Your task to perform on an android device: Add razer blade to the cart on bestbuy.com, then select checkout. Image 0: 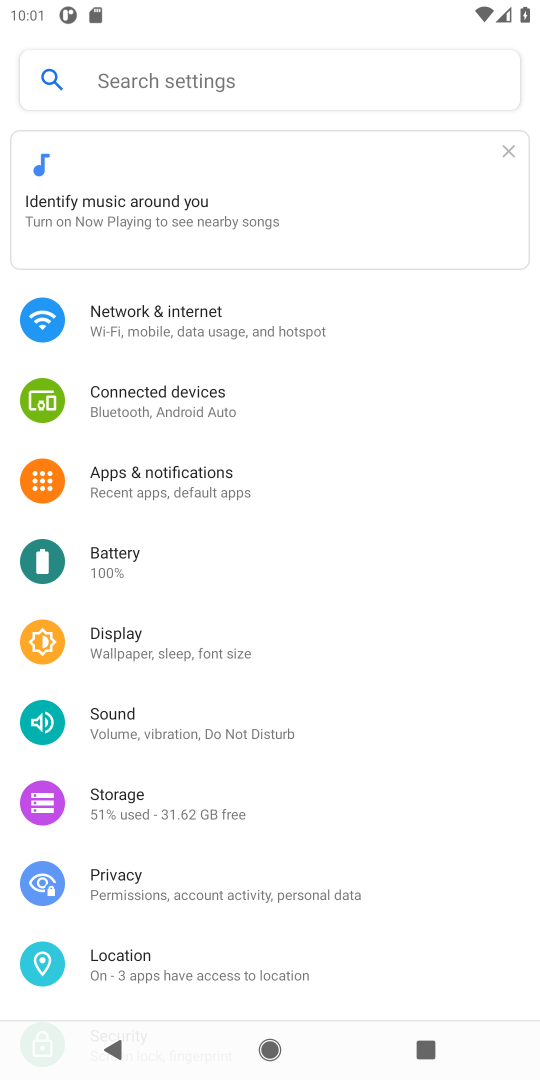
Step 0: press home button
Your task to perform on an android device: Add razer blade to the cart on bestbuy.com, then select checkout. Image 1: 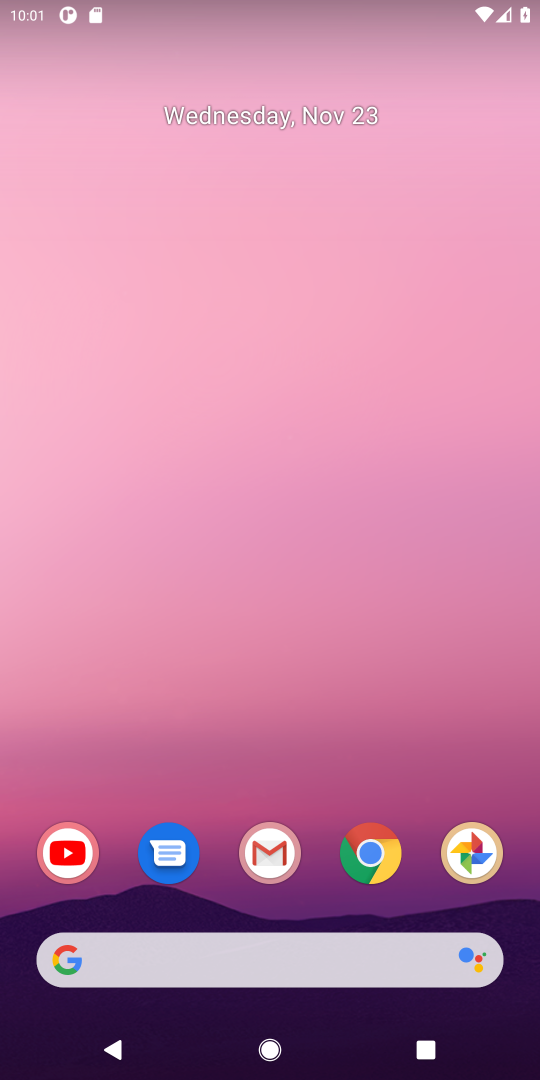
Step 1: click (361, 860)
Your task to perform on an android device: Add razer blade to the cart on bestbuy.com, then select checkout. Image 2: 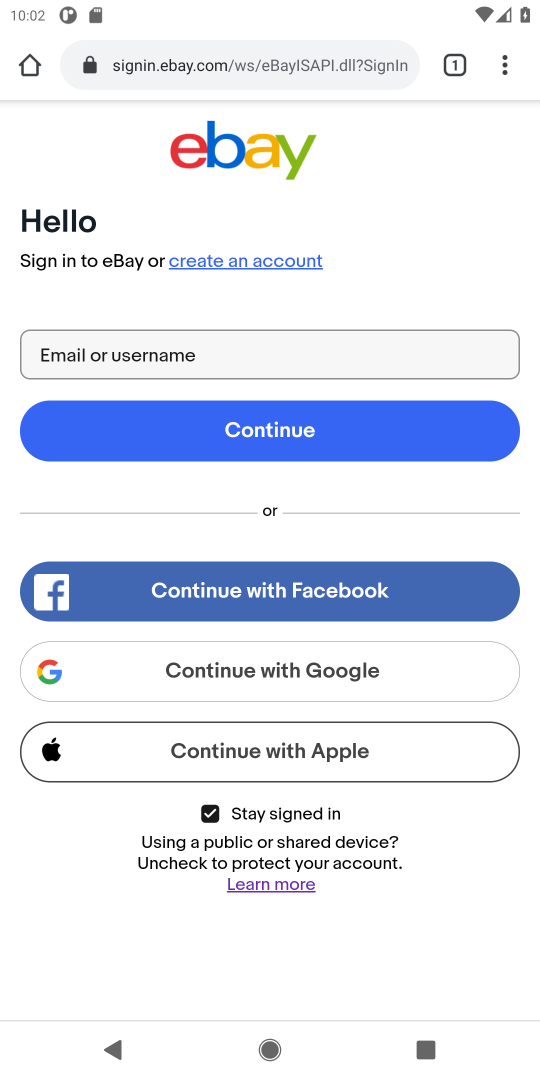
Step 2: click (156, 66)
Your task to perform on an android device: Add razer blade to the cart on bestbuy.com, then select checkout. Image 3: 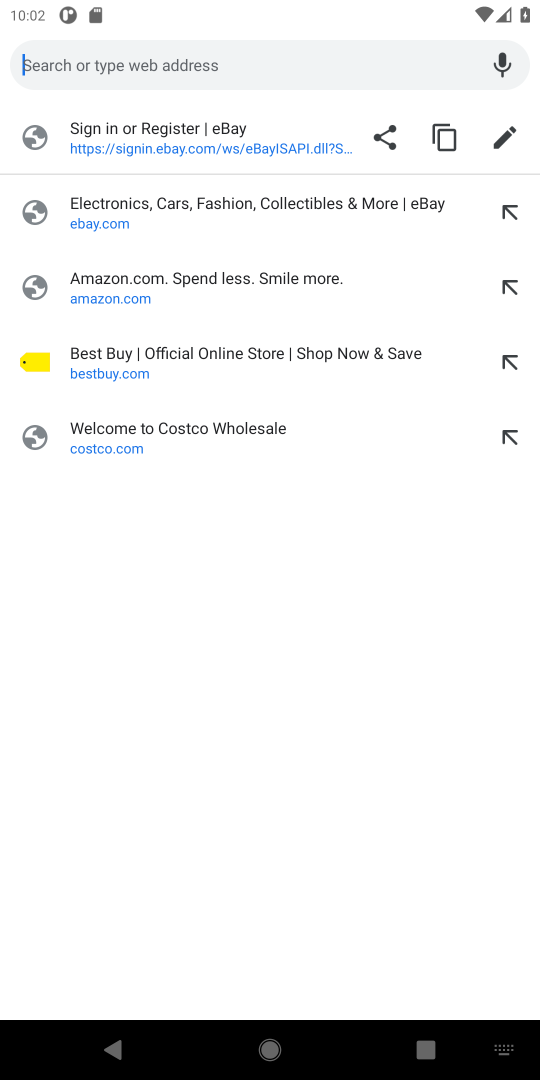
Step 3: click (90, 371)
Your task to perform on an android device: Add razer blade to the cart on bestbuy.com, then select checkout. Image 4: 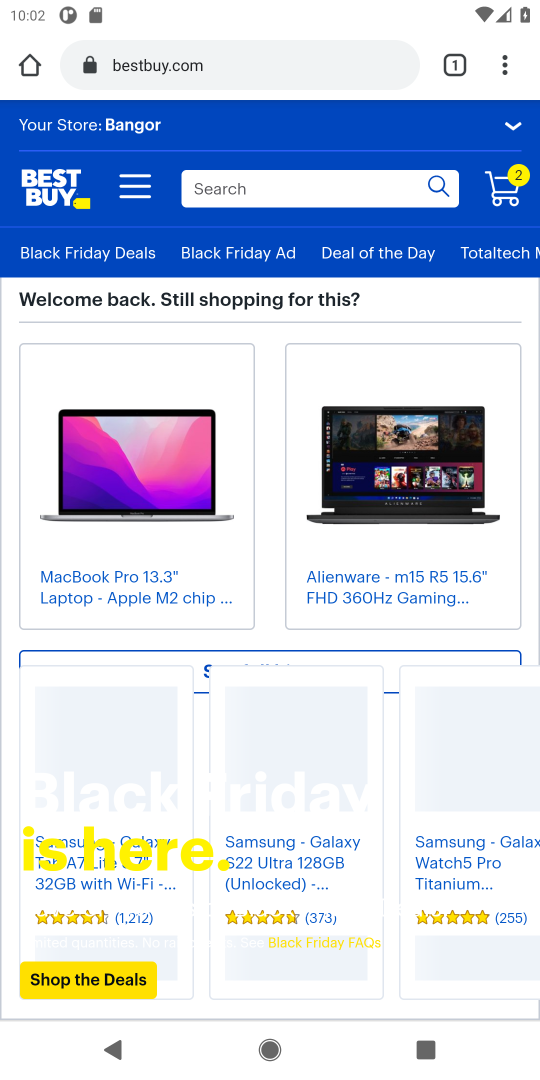
Step 4: click (267, 182)
Your task to perform on an android device: Add razer blade to the cart on bestbuy.com, then select checkout. Image 5: 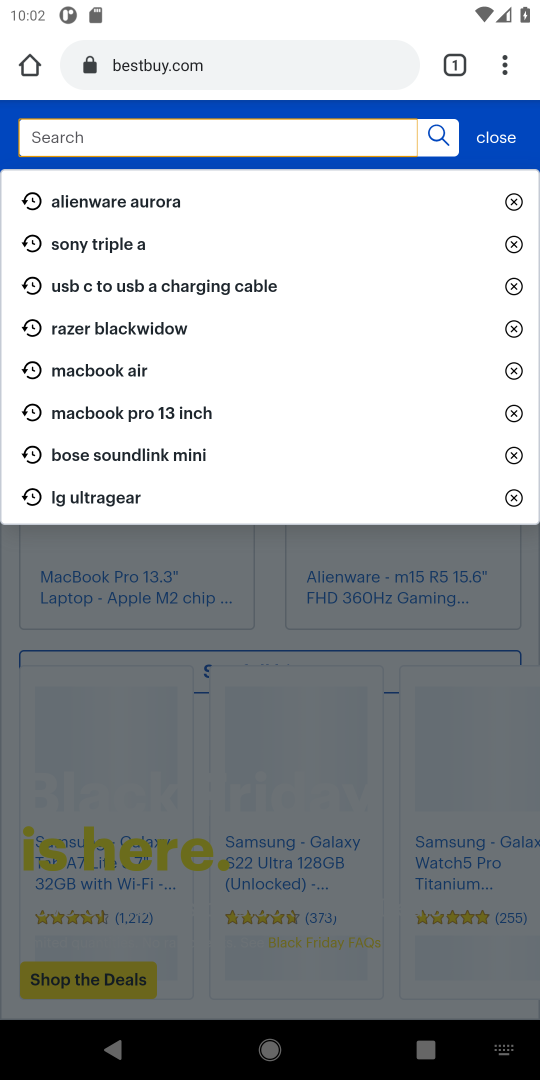
Step 5: type " razer blade "
Your task to perform on an android device: Add razer blade to the cart on bestbuy.com, then select checkout. Image 6: 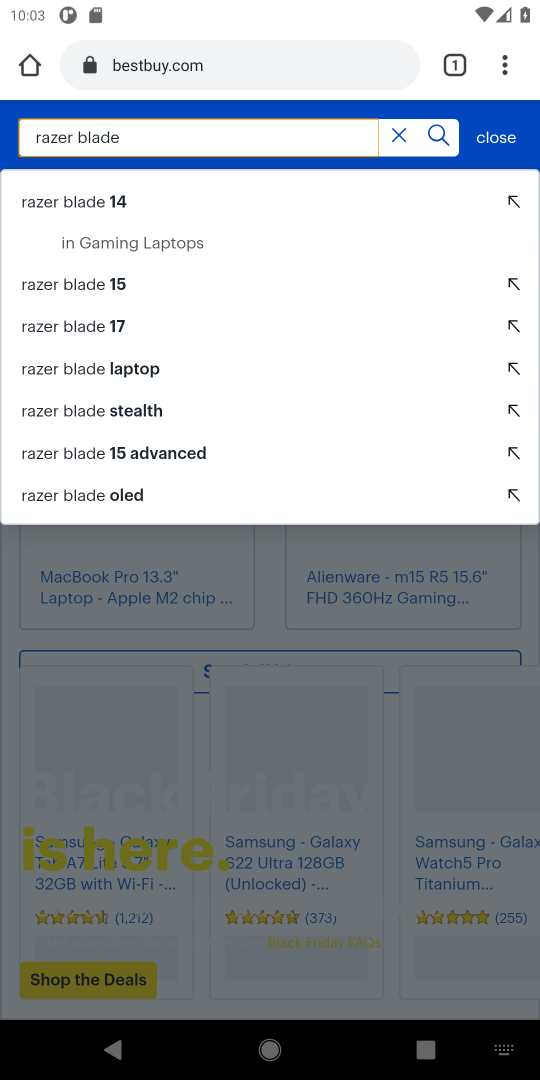
Step 6: click (68, 198)
Your task to perform on an android device: Add razer blade to the cart on bestbuy.com, then select checkout. Image 7: 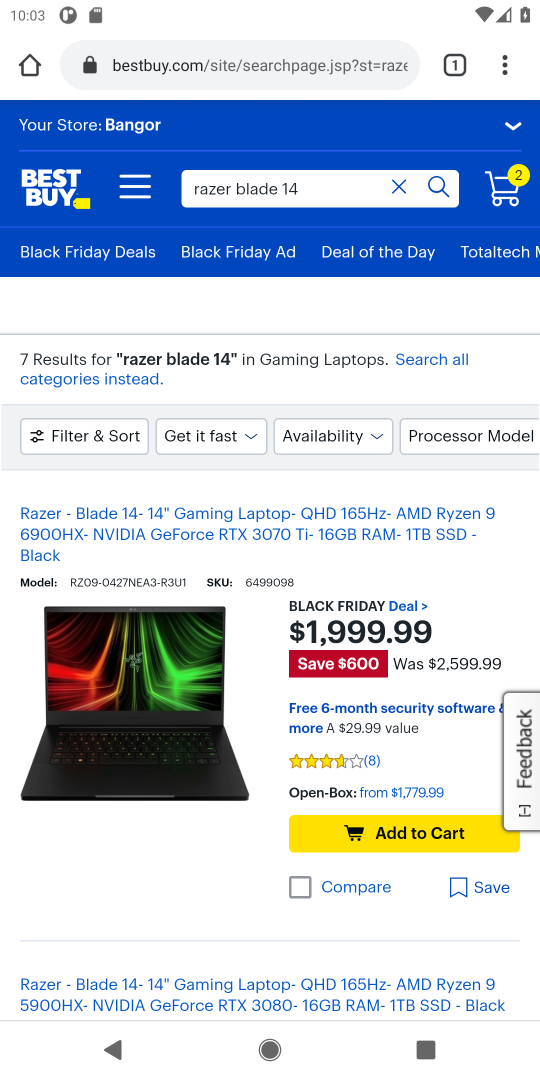
Step 7: click (405, 837)
Your task to perform on an android device: Add razer blade to the cart on bestbuy.com, then select checkout. Image 8: 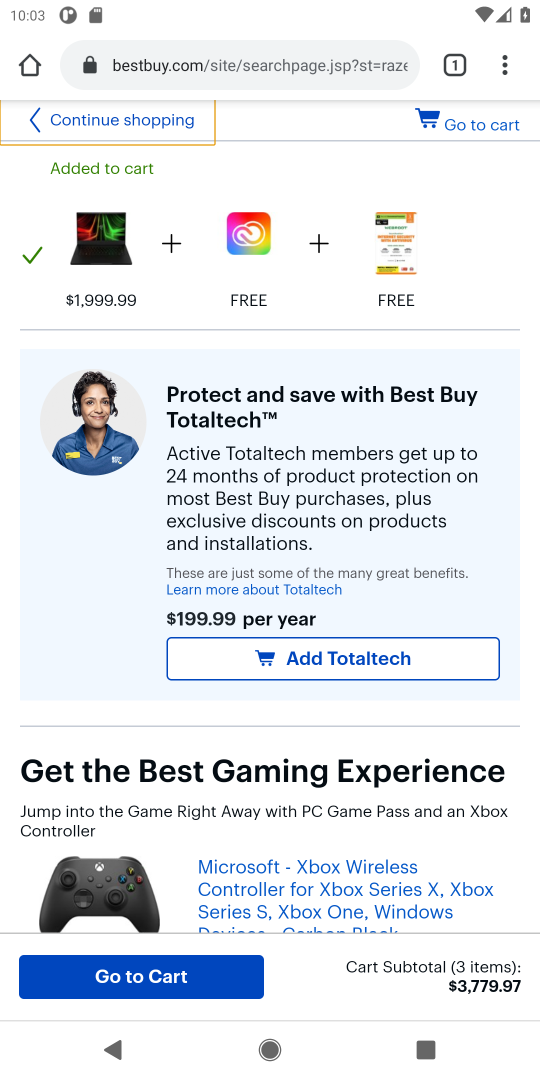
Step 8: click (487, 121)
Your task to perform on an android device: Add razer blade to the cart on bestbuy.com, then select checkout. Image 9: 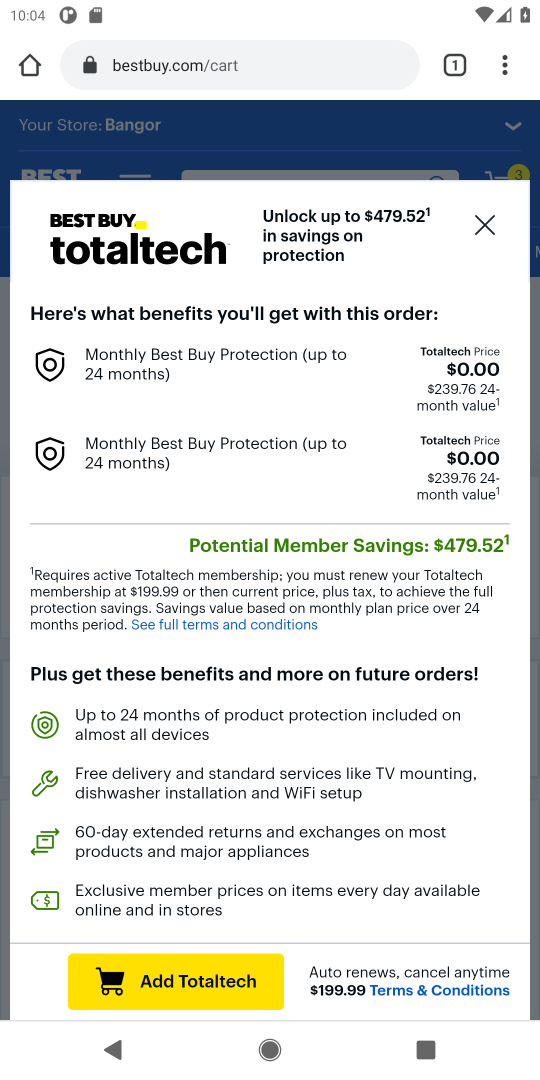
Step 9: click (476, 232)
Your task to perform on an android device: Add razer blade to the cart on bestbuy.com, then select checkout. Image 10: 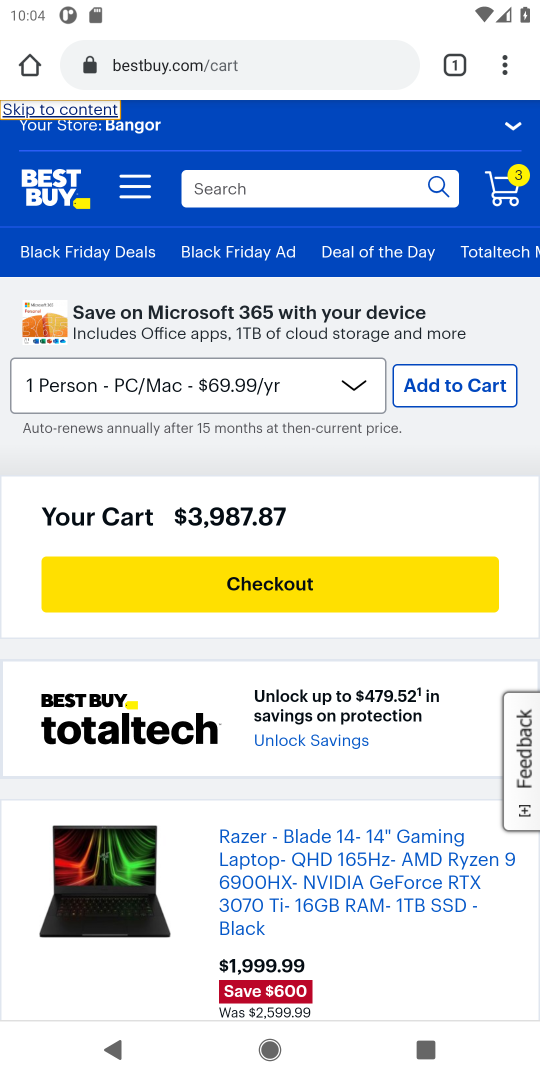
Step 10: click (190, 578)
Your task to perform on an android device: Add razer blade to the cart on bestbuy.com, then select checkout. Image 11: 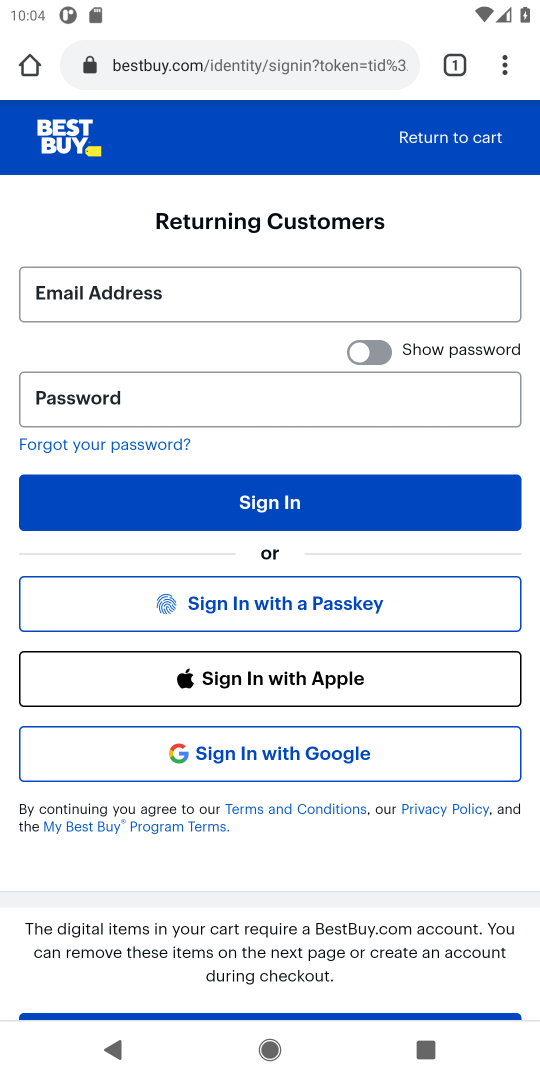
Step 11: task complete